Your task to perform on an android device: Go to calendar. Show me events next week Image 0: 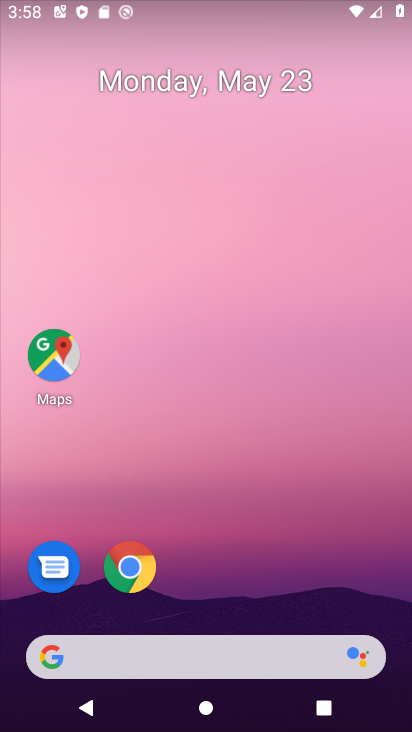
Step 0: drag from (395, 638) to (237, 30)
Your task to perform on an android device: Go to calendar. Show me events next week Image 1: 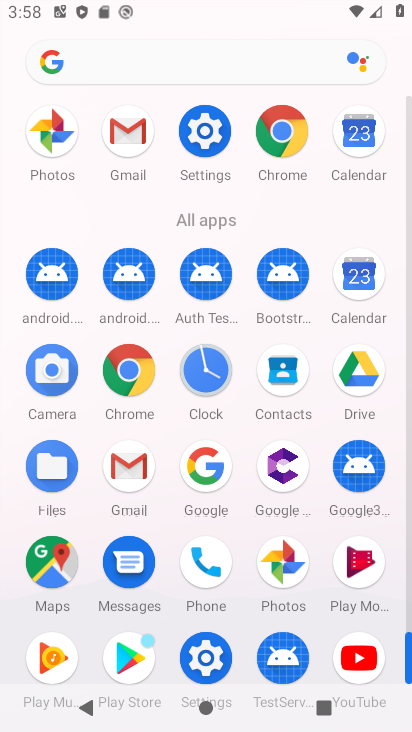
Step 1: click (359, 274)
Your task to perform on an android device: Go to calendar. Show me events next week Image 2: 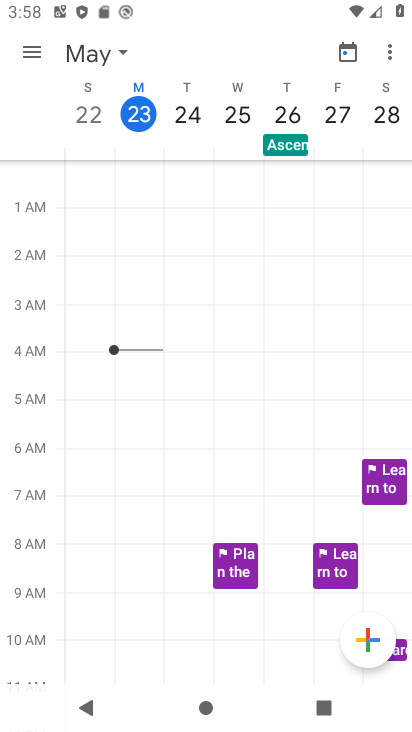
Step 2: click (116, 50)
Your task to perform on an android device: Go to calendar. Show me events next week Image 3: 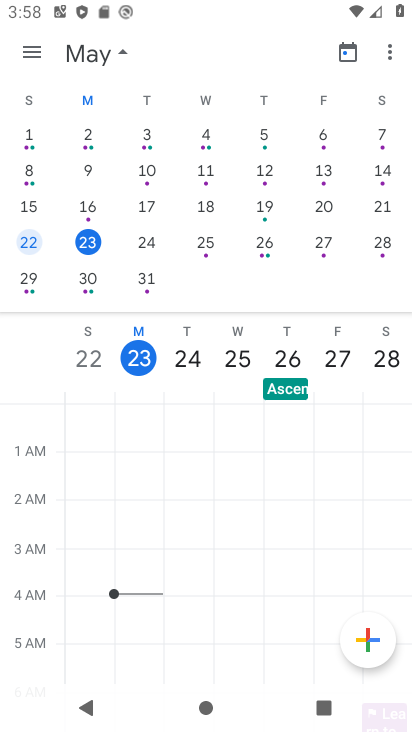
Step 3: click (29, 286)
Your task to perform on an android device: Go to calendar. Show me events next week Image 4: 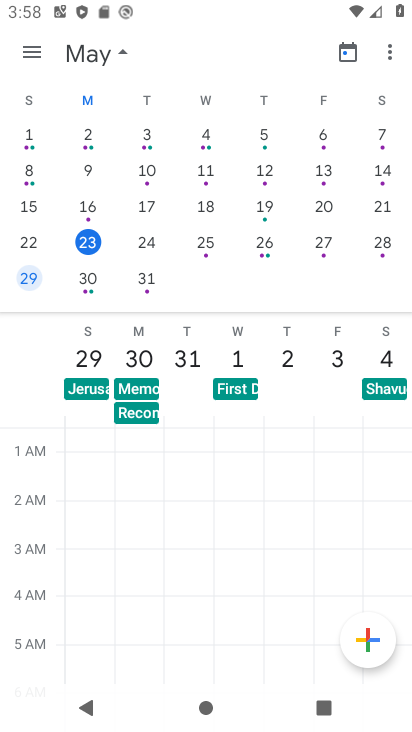
Step 4: task complete